Your task to perform on an android device: Show me popular videos on Youtube Image 0: 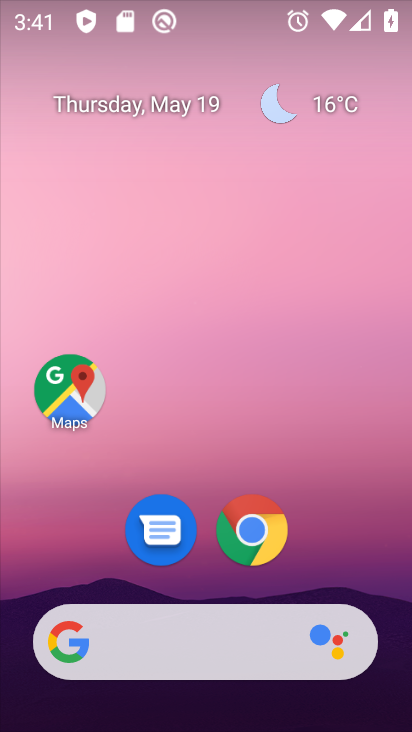
Step 0: drag from (338, 541) to (325, 137)
Your task to perform on an android device: Show me popular videos on Youtube Image 1: 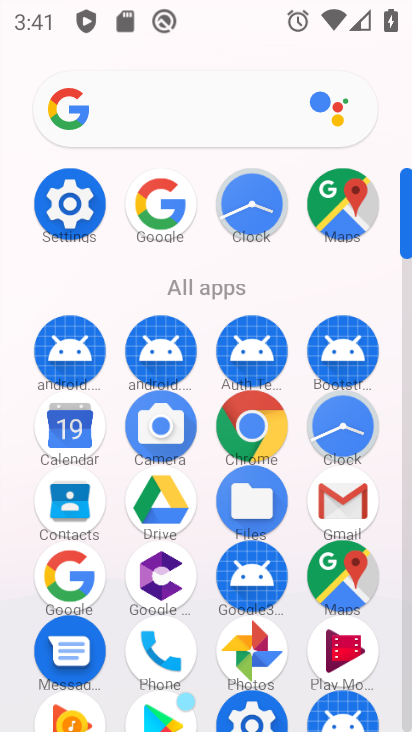
Step 1: drag from (298, 676) to (306, 321)
Your task to perform on an android device: Show me popular videos on Youtube Image 2: 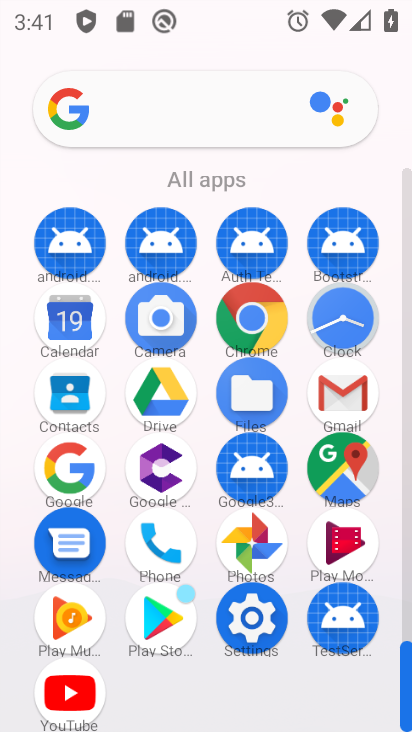
Step 2: click (90, 694)
Your task to perform on an android device: Show me popular videos on Youtube Image 3: 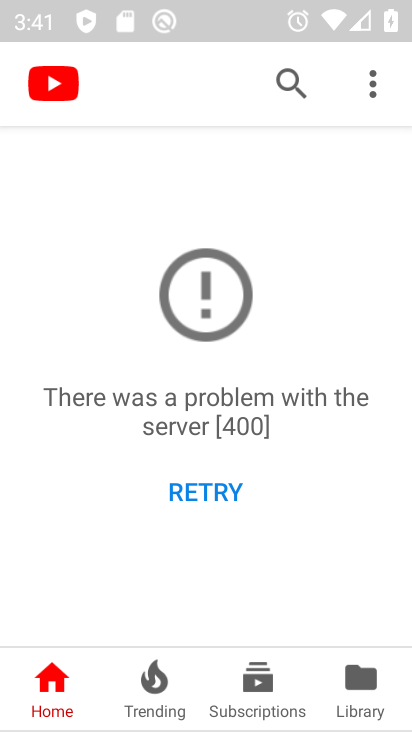
Step 3: click (154, 697)
Your task to perform on an android device: Show me popular videos on Youtube Image 4: 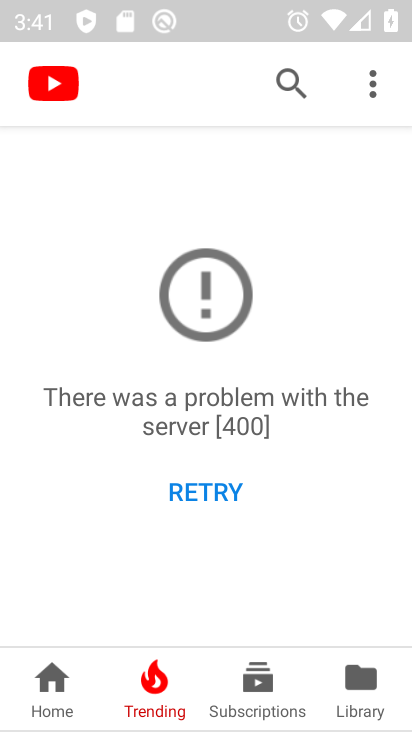
Step 4: task complete